Your task to perform on an android device: Open network settings Image 0: 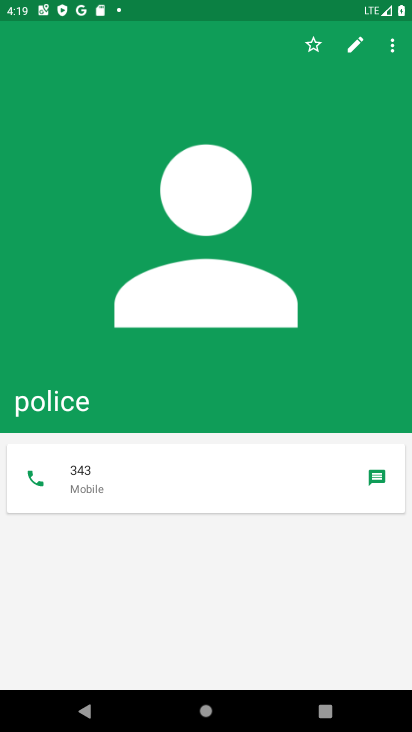
Step 0: press home button
Your task to perform on an android device: Open network settings Image 1: 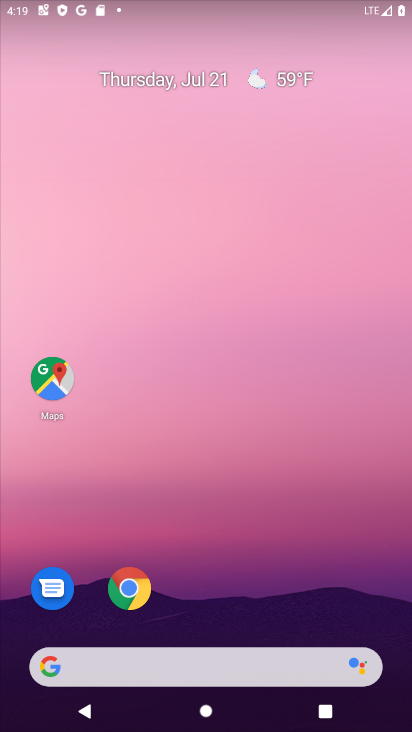
Step 1: drag from (230, 702) to (240, 129)
Your task to perform on an android device: Open network settings Image 2: 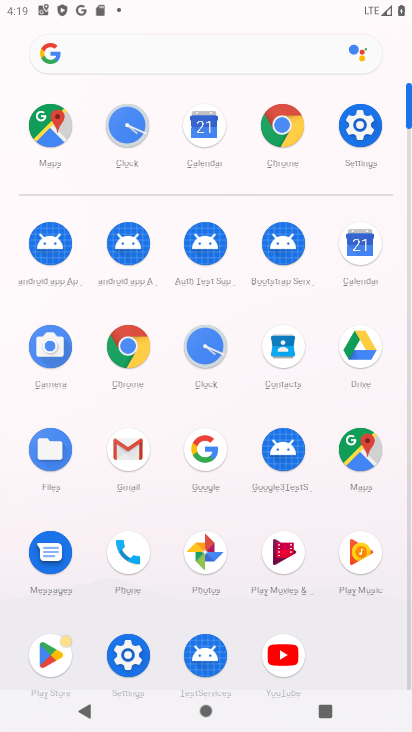
Step 2: click (367, 124)
Your task to perform on an android device: Open network settings Image 3: 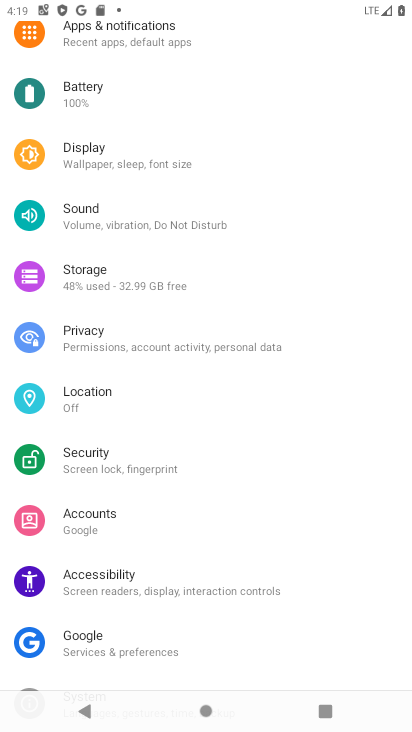
Step 3: drag from (170, 129) to (176, 520)
Your task to perform on an android device: Open network settings Image 4: 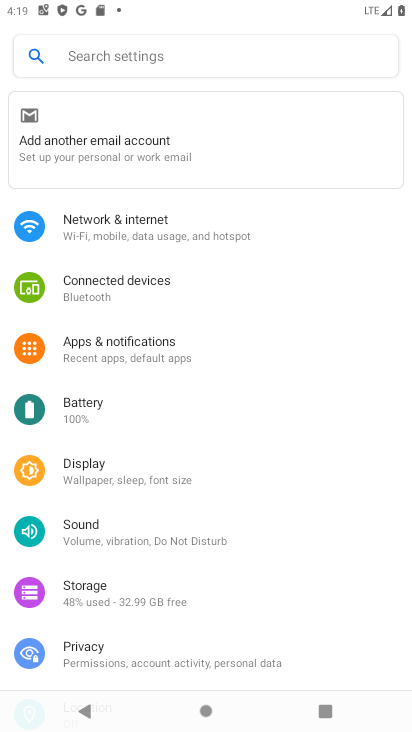
Step 4: click (123, 219)
Your task to perform on an android device: Open network settings Image 5: 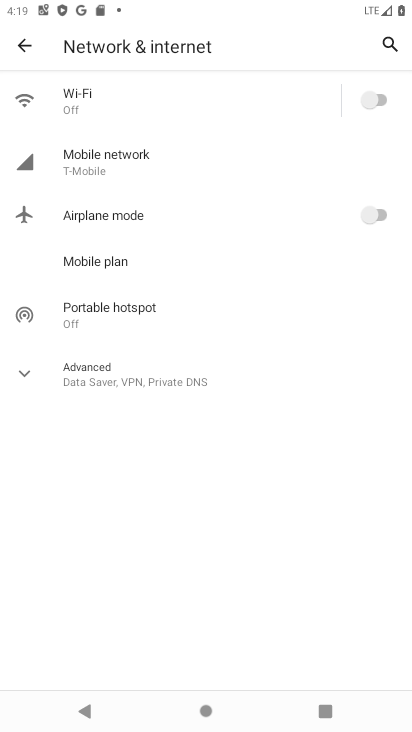
Step 5: task complete